Your task to perform on an android device: snooze an email in the gmail app Image 0: 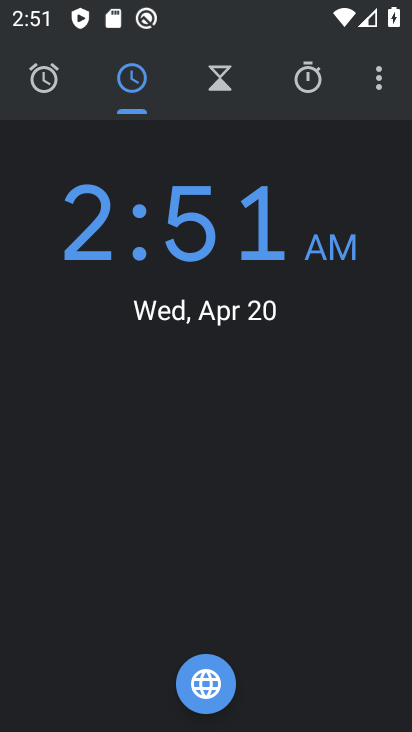
Step 0: press home button
Your task to perform on an android device: snooze an email in the gmail app Image 1: 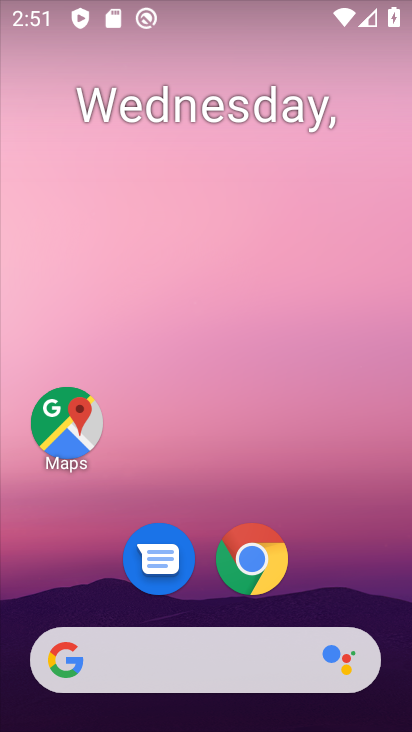
Step 1: drag from (339, 568) to (330, 205)
Your task to perform on an android device: snooze an email in the gmail app Image 2: 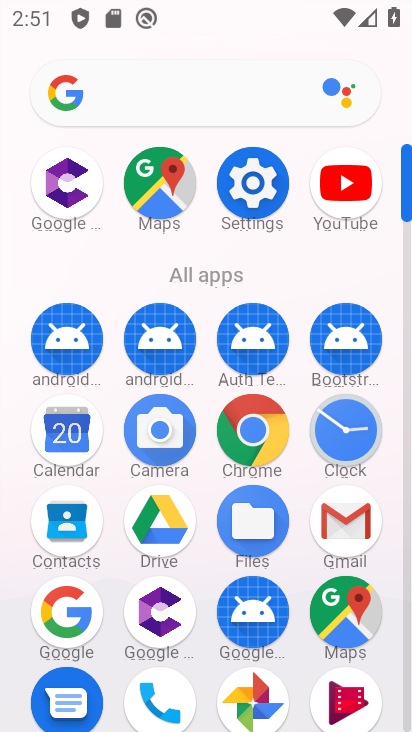
Step 2: click (342, 537)
Your task to perform on an android device: snooze an email in the gmail app Image 3: 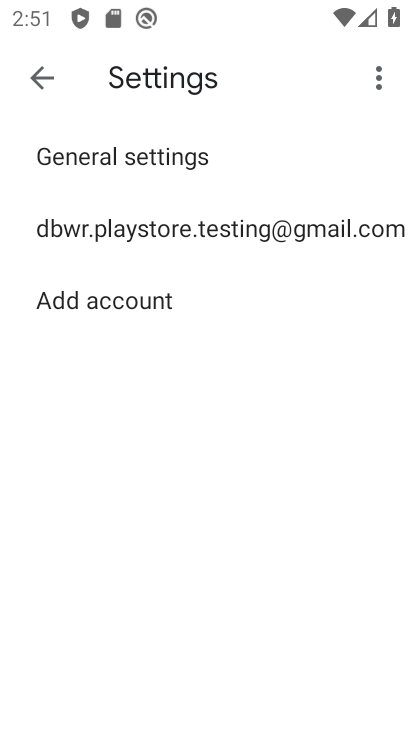
Step 3: click (224, 240)
Your task to perform on an android device: snooze an email in the gmail app Image 4: 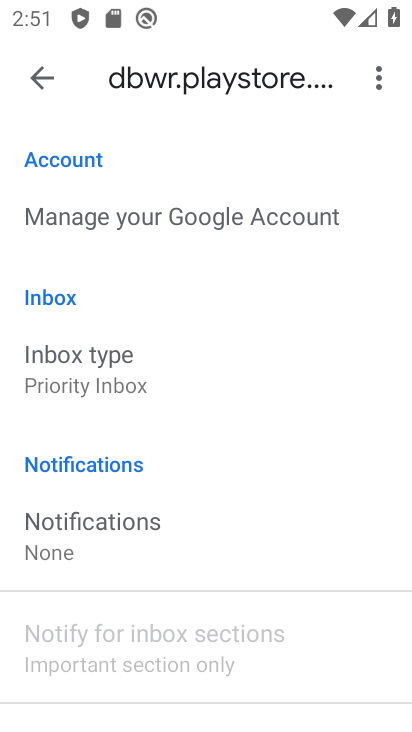
Step 4: click (42, 62)
Your task to perform on an android device: snooze an email in the gmail app Image 5: 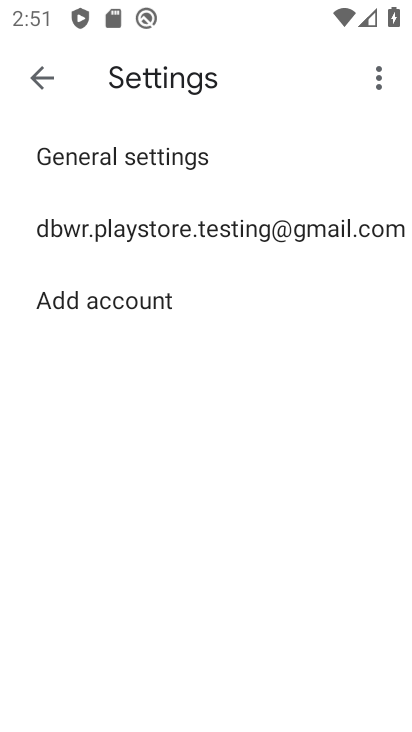
Step 5: click (42, 62)
Your task to perform on an android device: snooze an email in the gmail app Image 6: 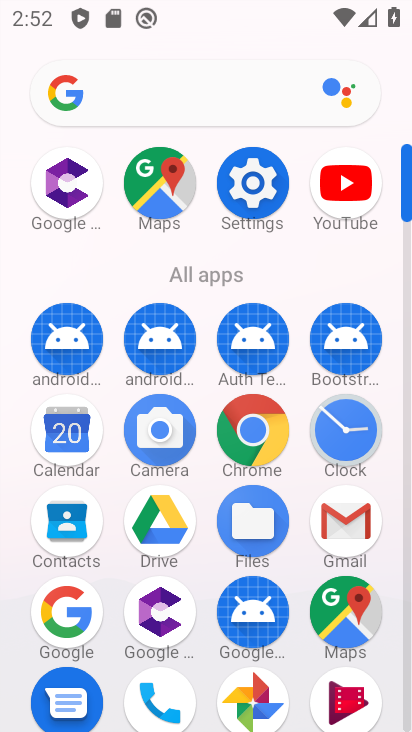
Step 6: click (326, 533)
Your task to perform on an android device: snooze an email in the gmail app Image 7: 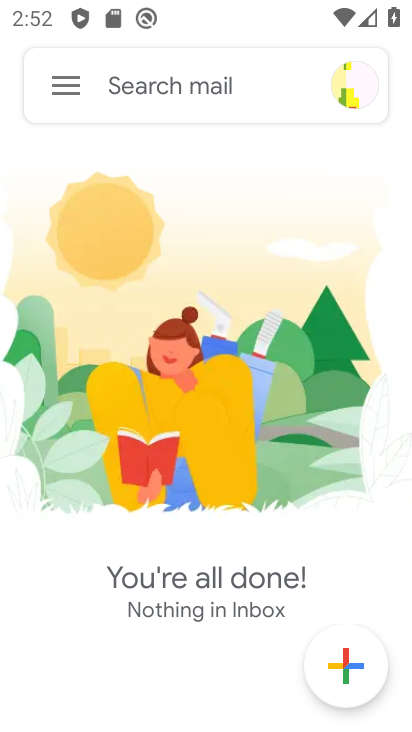
Step 7: click (68, 103)
Your task to perform on an android device: snooze an email in the gmail app Image 8: 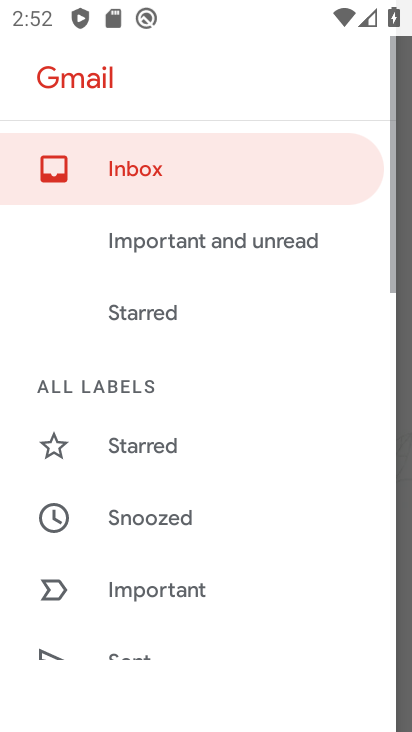
Step 8: drag from (215, 617) to (254, 306)
Your task to perform on an android device: snooze an email in the gmail app Image 9: 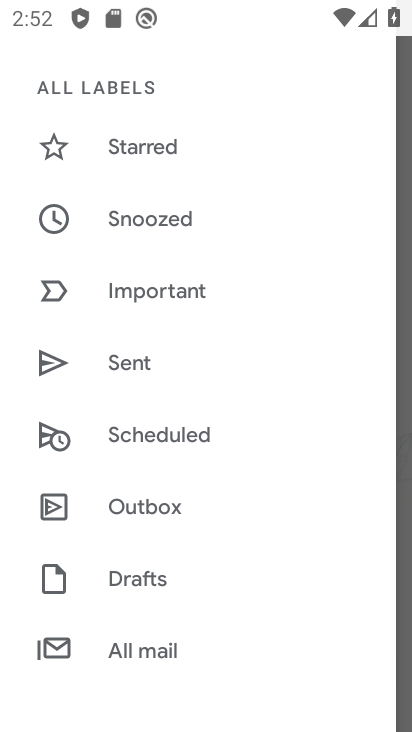
Step 9: click (171, 632)
Your task to perform on an android device: snooze an email in the gmail app Image 10: 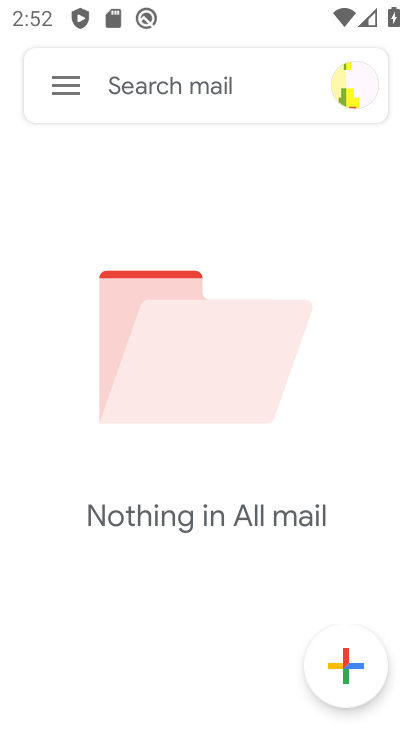
Step 10: task complete